Your task to perform on an android device: Open my contact list Image 0: 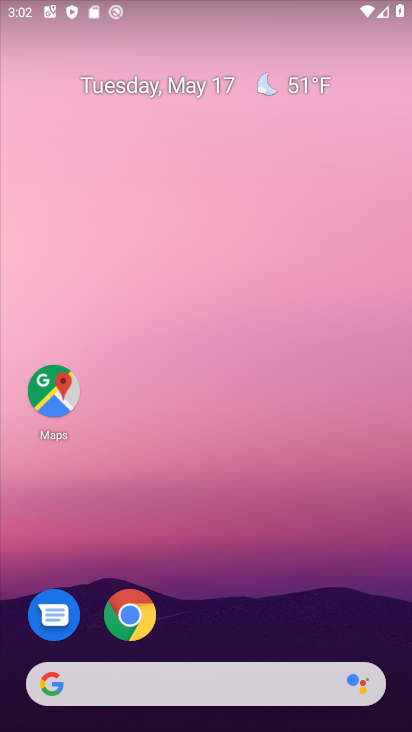
Step 0: press home button
Your task to perform on an android device: Open my contact list Image 1: 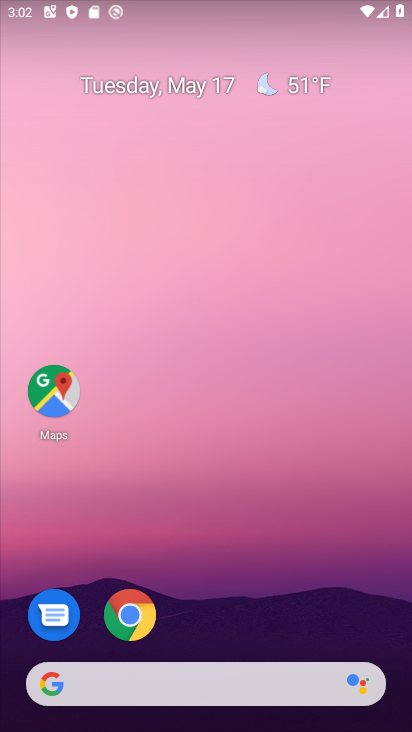
Step 1: drag from (213, 635) to (342, 121)
Your task to perform on an android device: Open my contact list Image 2: 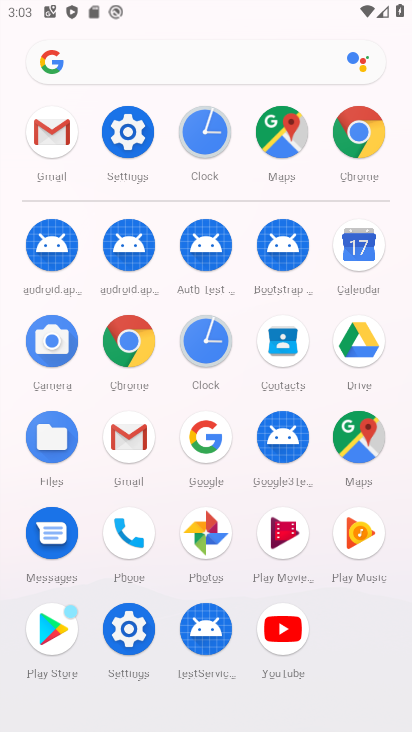
Step 2: click (280, 335)
Your task to perform on an android device: Open my contact list Image 3: 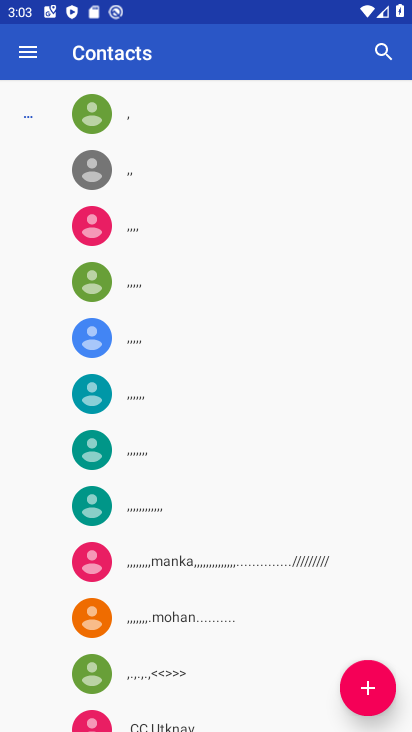
Step 3: task complete